Your task to perform on an android device: Go to privacy settings Image 0: 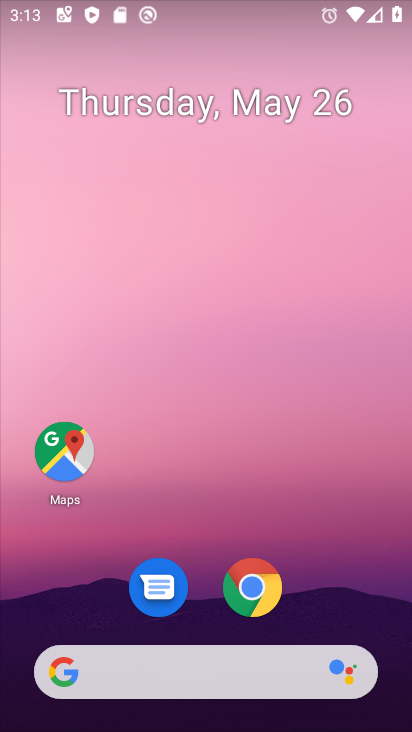
Step 0: drag from (359, 596) to (379, 174)
Your task to perform on an android device: Go to privacy settings Image 1: 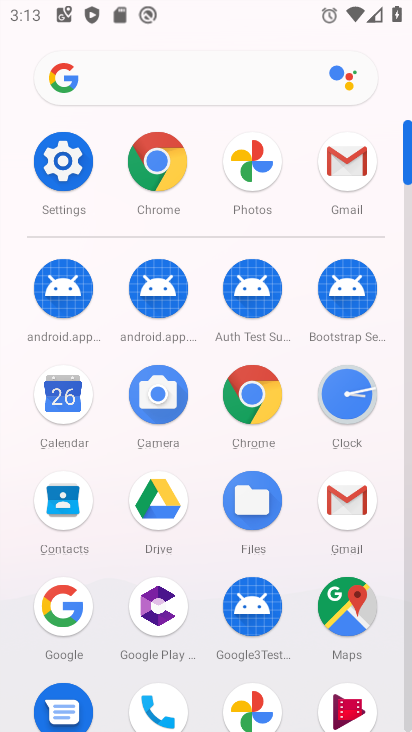
Step 1: click (73, 175)
Your task to perform on an android device: Go to privacy settings Image 2: 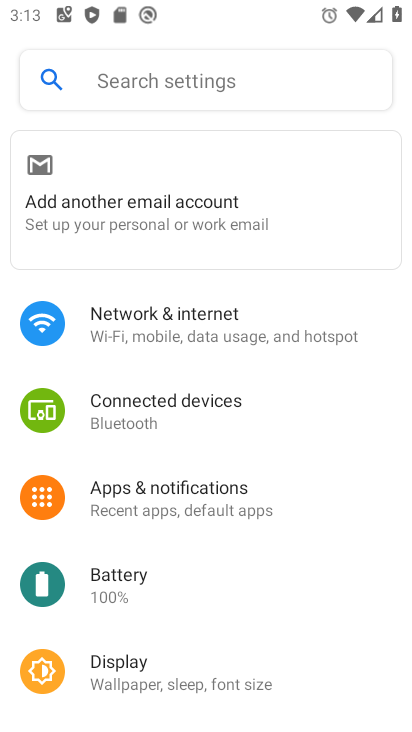
Step 2: drag from (331, 561) to (340, 449)
Your task to perform on an android device: Go to privacy settings Image 3: 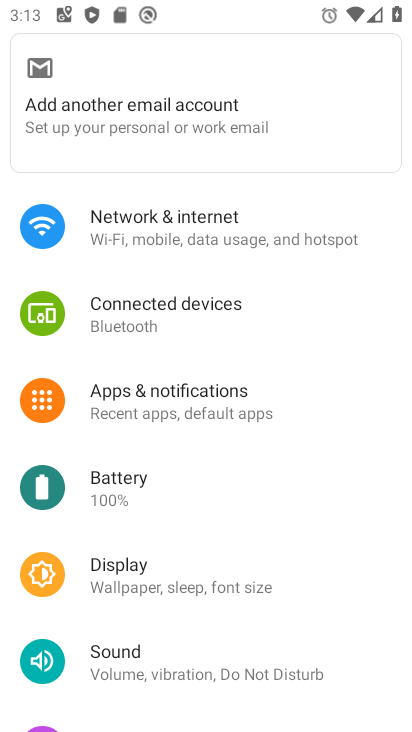
Step 3: drag from (344, 578) to (344, 381)
Your task to perform on an android device: Go to privacy settings Image 4: 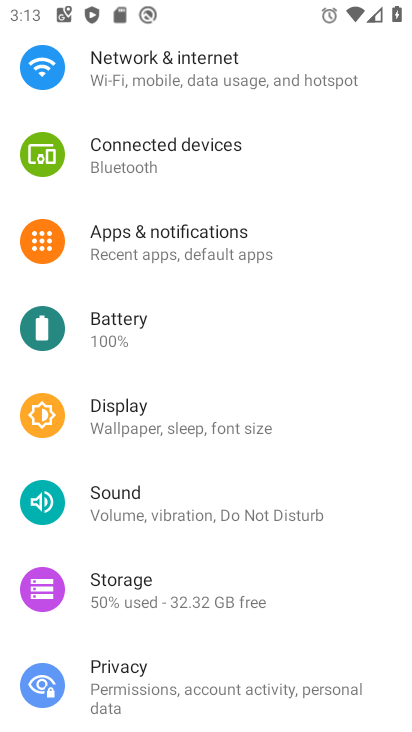
Step 4: drag from (363, 544) to (349, 443)
Your task to perform on an android device: Go to privacy settings Image 5: 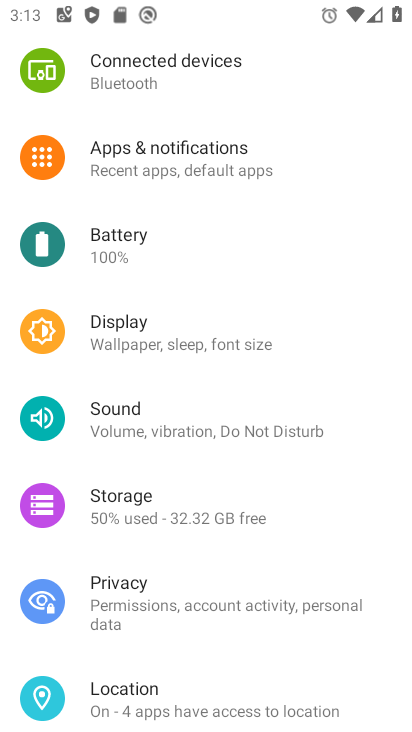
Step 5: drag from (361, 584) to (355, 447)
Your task to perform on an android device: Go to privacy settings Image 6: 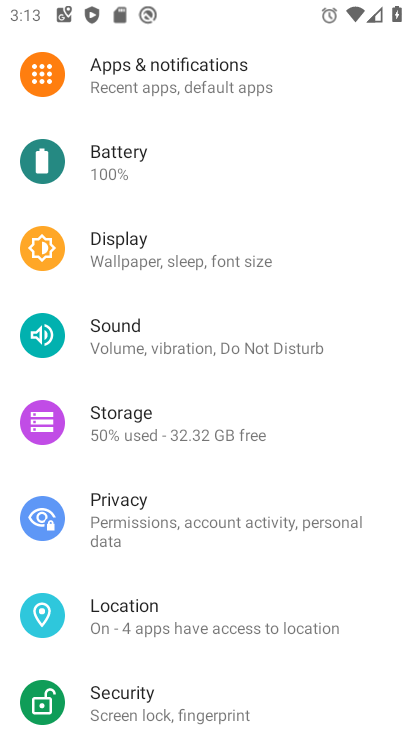
Step 6: drag from (351, 578) to (353, 474)
Your task to perform on an android device: Go to privacy settings Image 7: 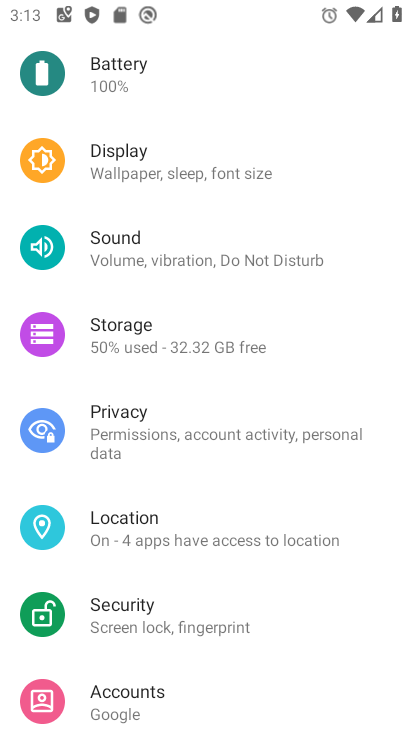
Step 7: drag from (355, 619) to (354, 463)
Your task to perform on an android device: Go to privacy settings Image 8: 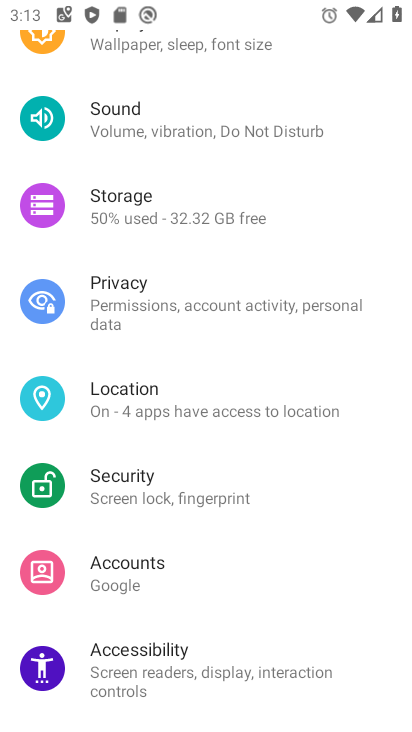
Step 8: drag from (327, 601) to (332, 455)
Your task to perform on an android device: Go to privacy settings Image 9: 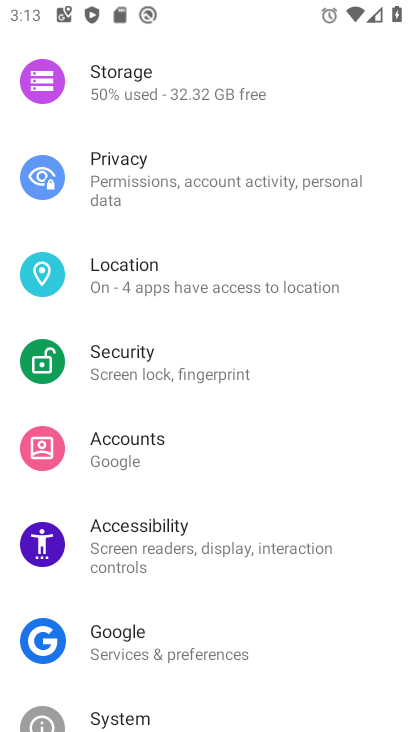
Step 9: drag from (341, 598) to (347, 457)
Your task to perform on an android device: Go to privacy settings Image 10: 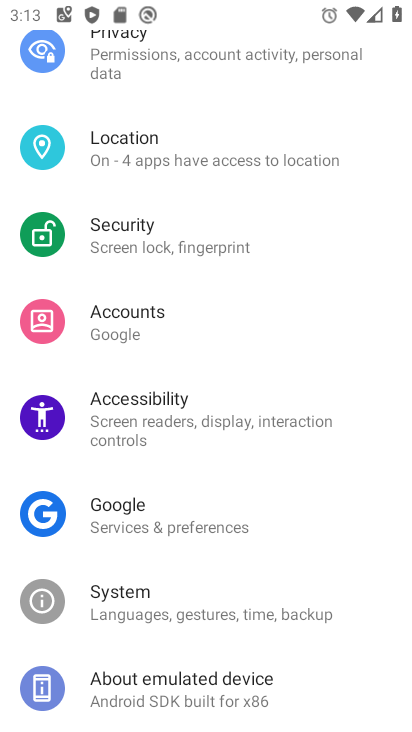
Step 10: drag from (349, 584) to (331, 437)
Your task to perform on an android device: Go to privacy settings Image 11: 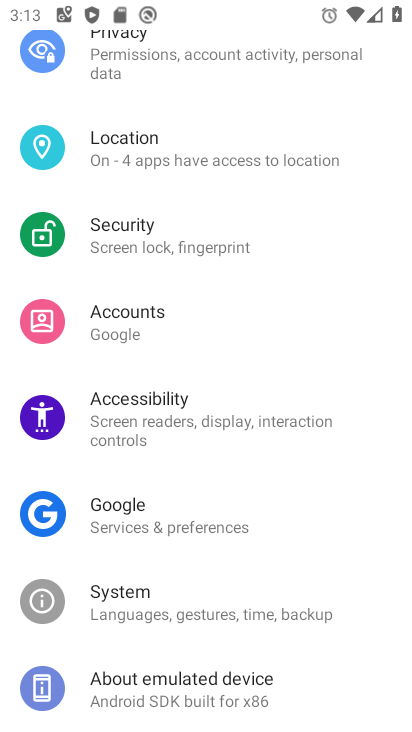
Step 11: drag from (338, 373) to (352, 528)
Your task to perform on an android device: Go to privacy settings Image 12: 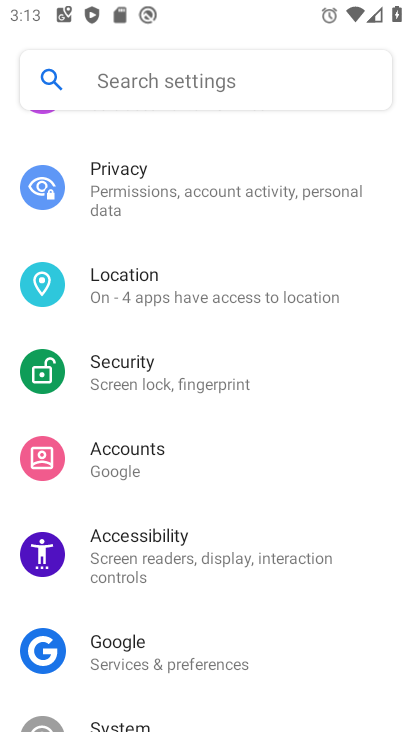
Step 12: drag from (321, 381) to (330, 489)
Your task to perform on an android device: Go to privacy settings Image 13: 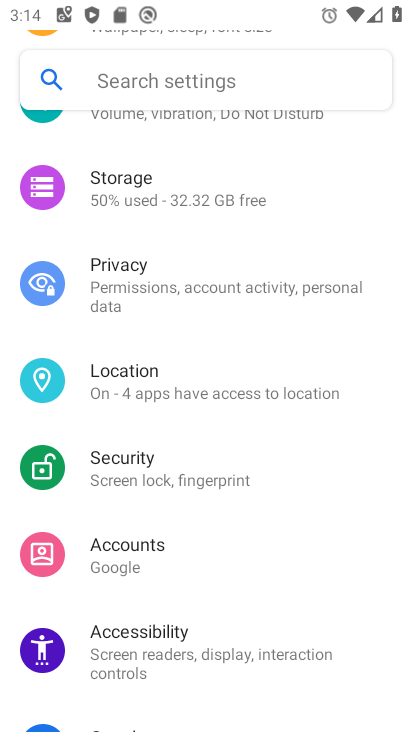
Step 13: drag from (312, 344) to (316, 488)
Your task to perform on an android device: Go to privacy settings Image 14: 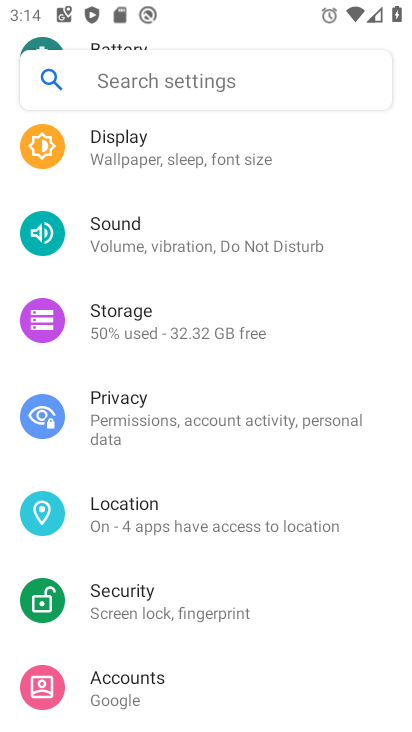
Step 14: click (321, 417)
Your task to perform on an android device: Go to privacy settings Image 15: 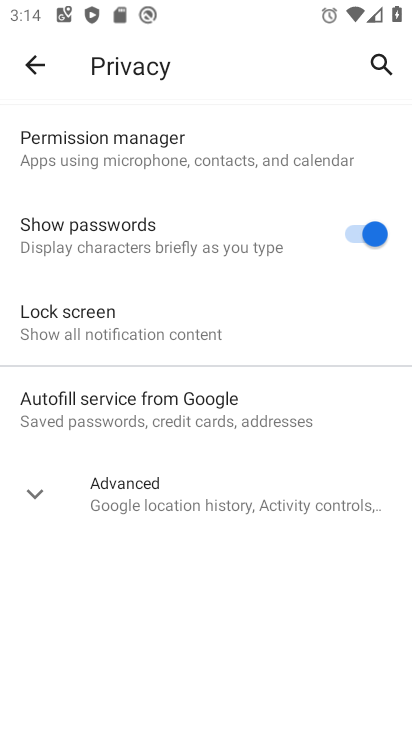
Step 15: task complete